Your task to perform on an android device: uninstall "Upside-Cash back on gas & food" Image 0: 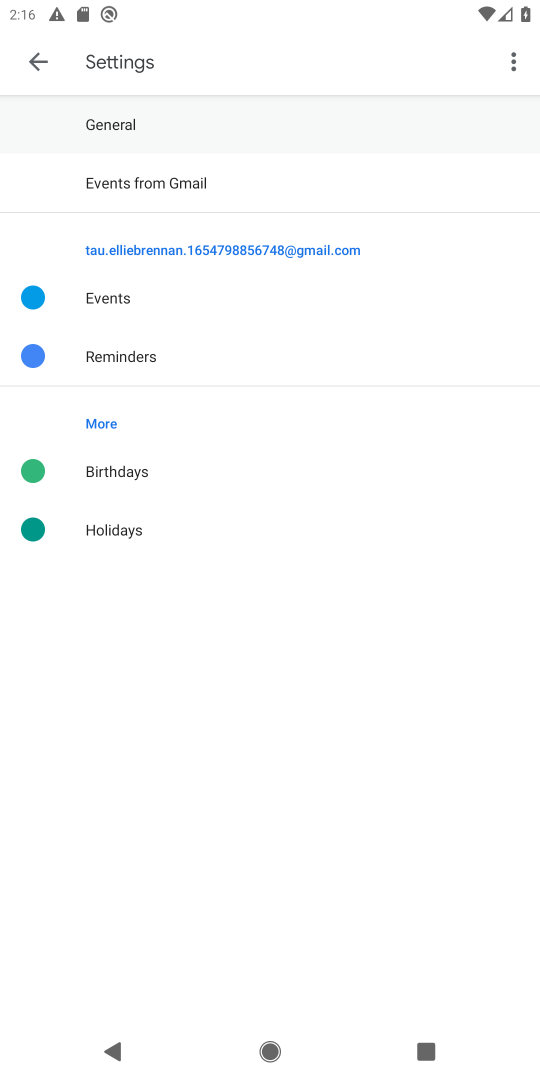
Step 0: press home button
Your task to perform on an android device: uninstall "Upside-Cash back on gas & food" Image 1: 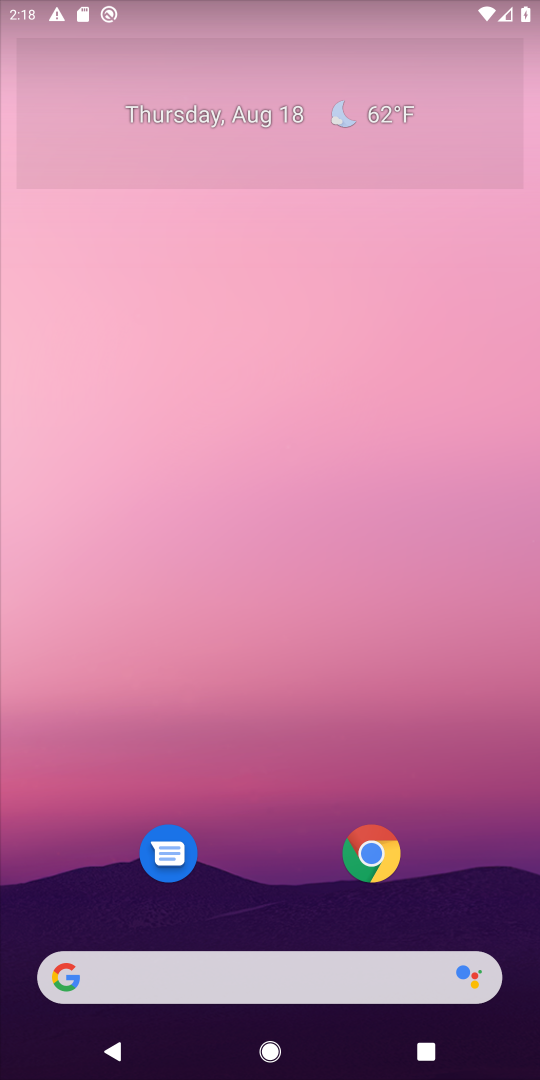
Step 1: drag from (491, 886) to (281, 0)
Your task to perform on an android device: uninstall "Upside-Cash back on gas & food" Image 2: 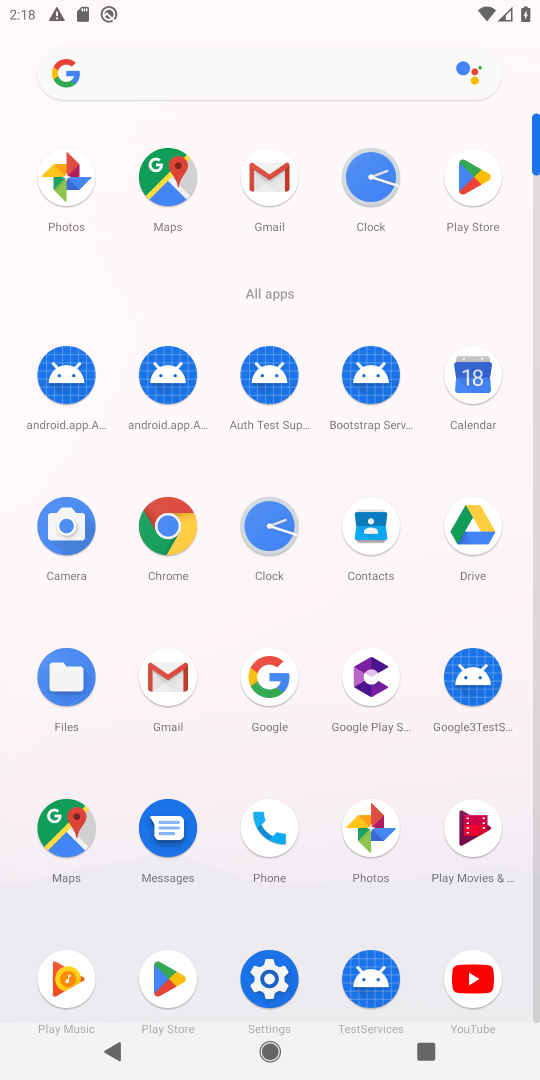
Step 2: click (462, 195)
Your task to perform on an android device: uninstall "Upside-Cash back on gas & food" Image 3: 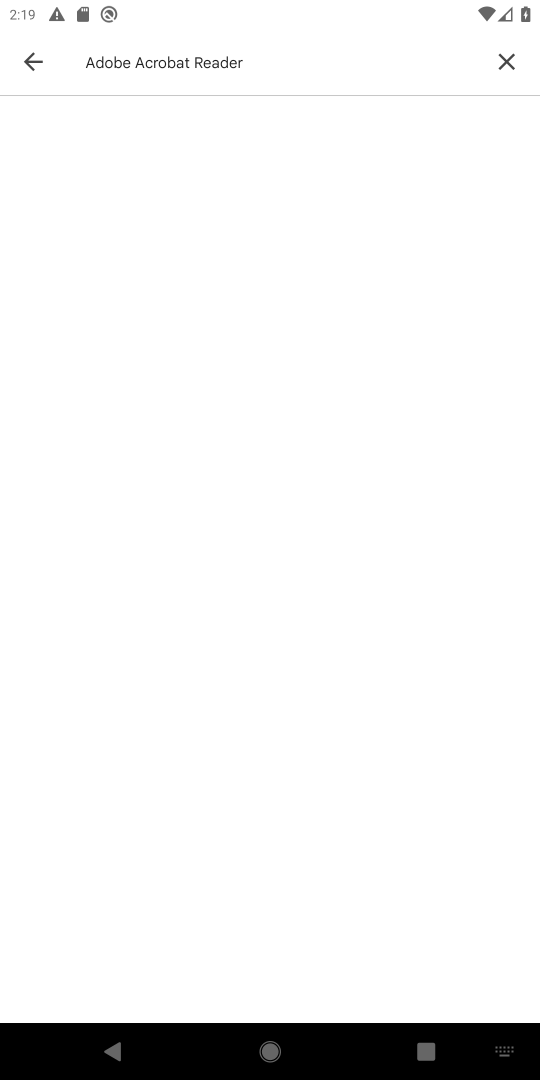
Step 3: click (505, 61)
Your task to perform on an android device: uninstall "Upside-Cash back on gas & food" Image 4: 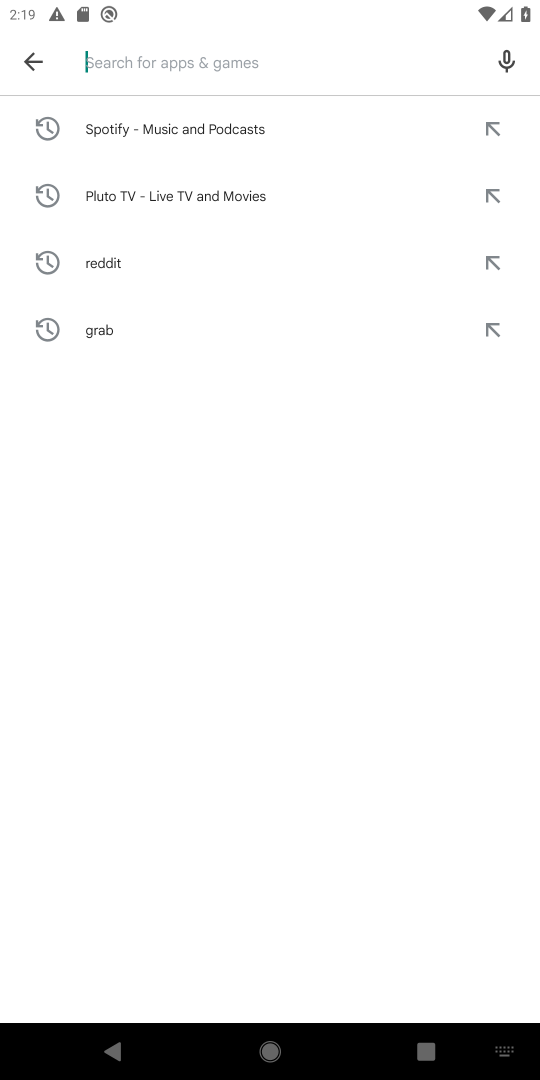
Step 4: type "Upside-Cash back on gas & food"
Your task to perform on an android device: uninstall "Upside-Cash back on gas & food" Image 5: 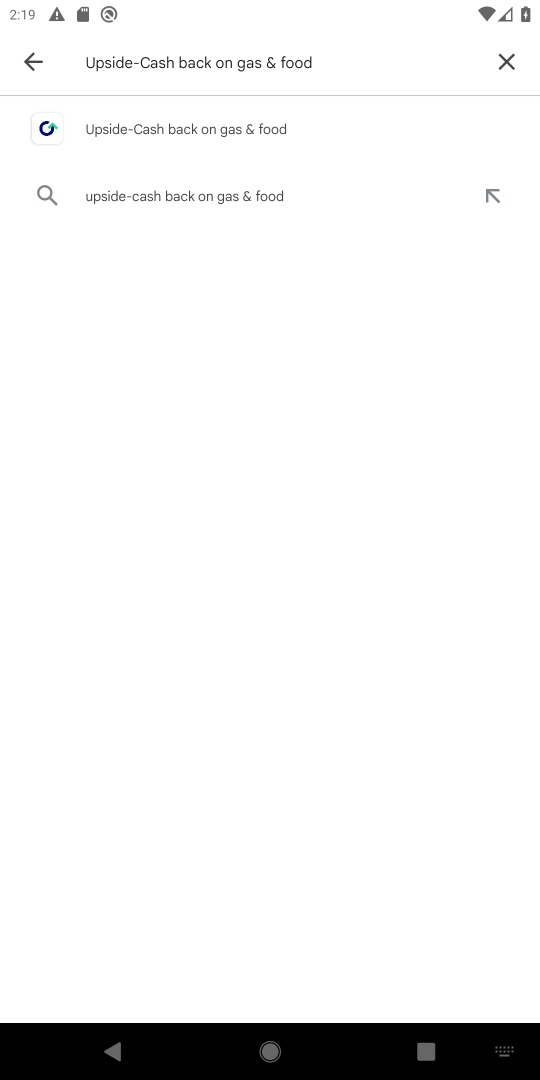
Step 5: click (225, 131)
Your task to perform on an android device: uninstall "Upside-Cash back on gas & food" Image 6: 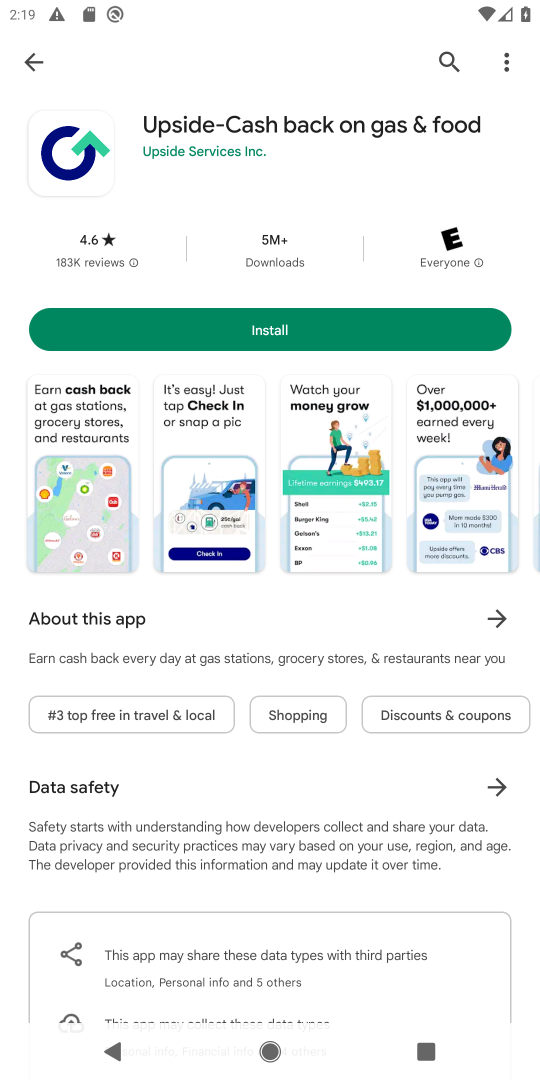
Step 6: task complete